Your task to perform on an android device: Go to Wikipedia Image 0: 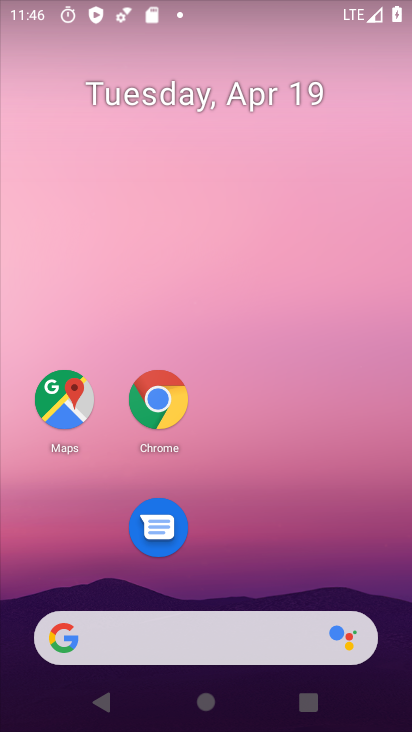
Step 0: drag from (244, 671) to (224, 213)
Your task to perform on an android device: Go to Wikipedia Image 1: 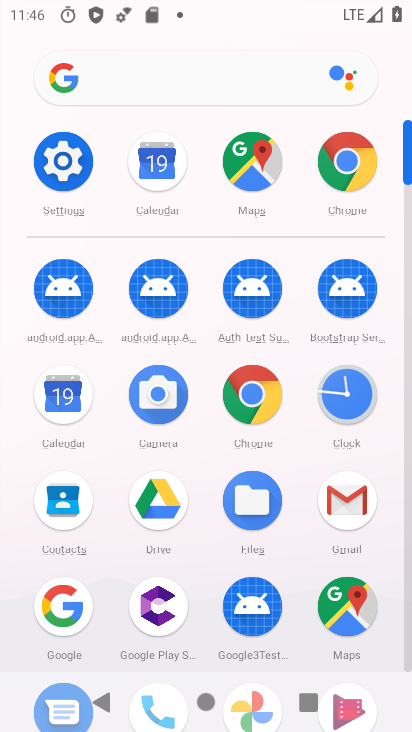
Step 1: click (250, 405)
Your task to perform on an android device: Go to Wikipedia Image 2: 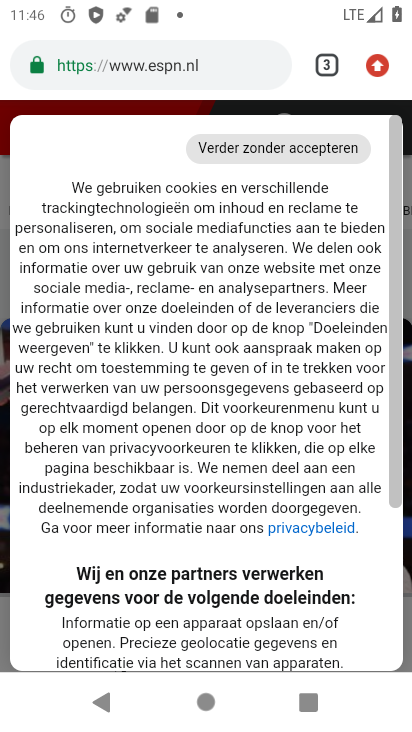
Step 2: click (329, 65)
Your task to perform on an android device: Go to Wikipedia Image 3: 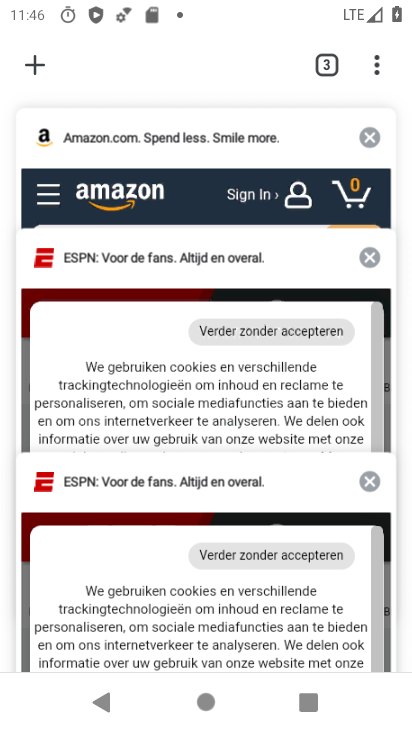
Step 3: click (37, 61)
Your task to perform on an android device: Go to Wikipedia Image 4: 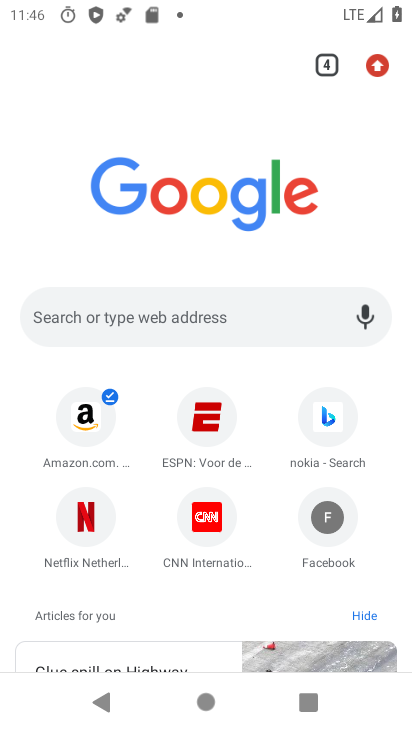
Step 4: click (136, 328)
Your task to perform on an android device: Go to Wikipedia Image 5: 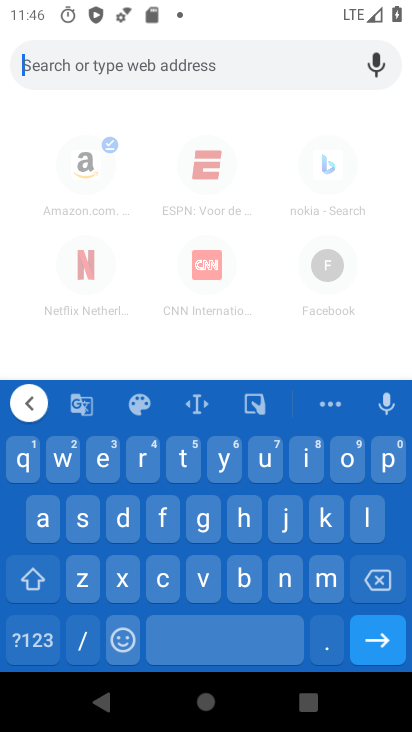
Step 5: click (62, 460)
Your task to perform on an android device: Go to Wikipedia Image 6: 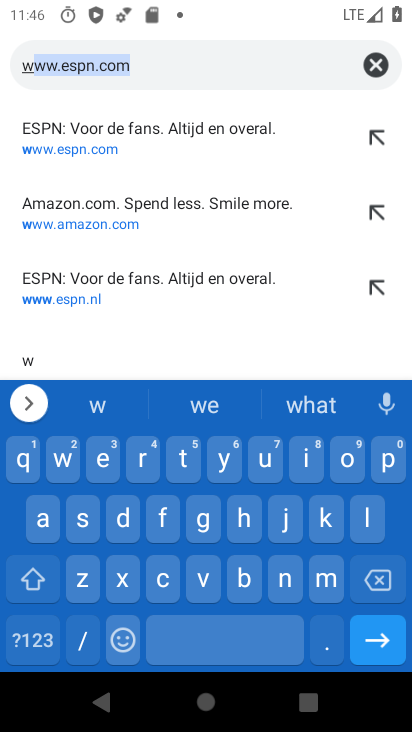
Step 6: click (309, 463)
Your task to perform on an android device: Go to Wikipedia Image 7: 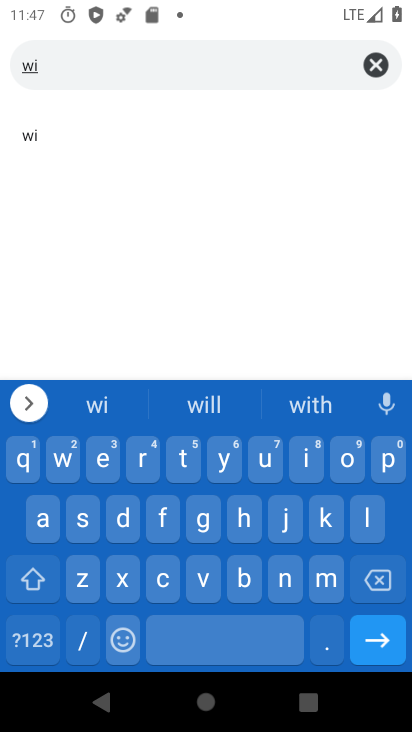
Step 7: click (328, 519)
Your task to perform on an android device: Go to Wikipedia Image 8: 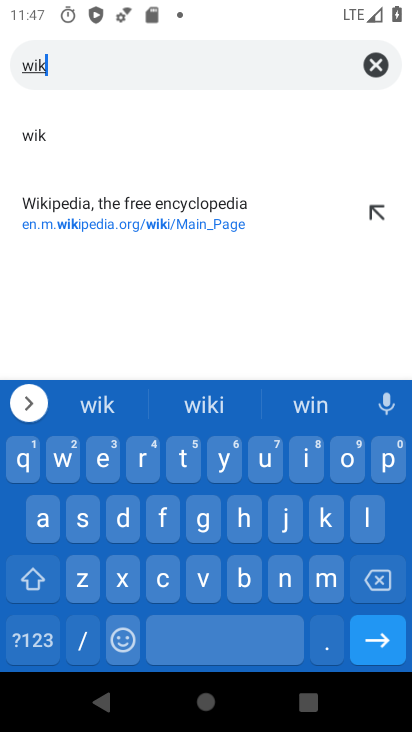
Step 8: click (184, 222)
Your task to perform on an android device: Go to Wikipedia Image 9: 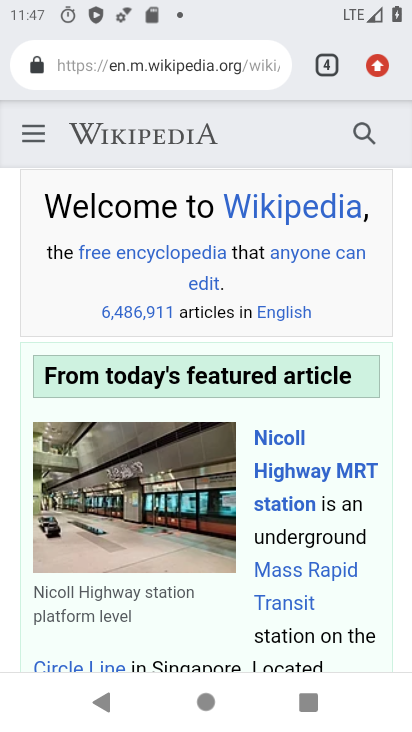
Step 9: task complete